Your task to perform on an android device: see sites visited before in the chrome app Image 0: 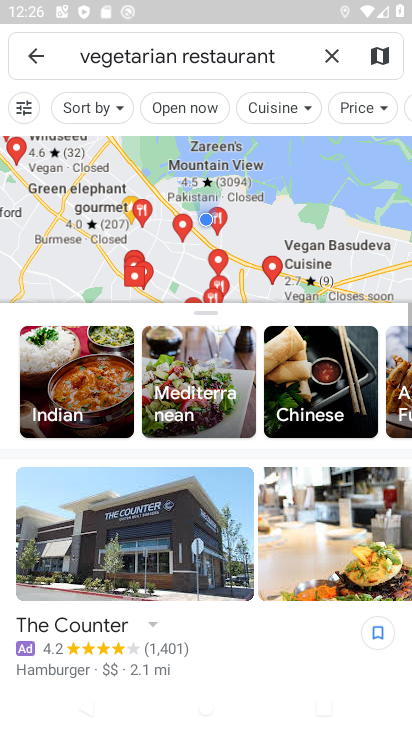
Step 0: press home button
Your task to perform on an android device: see sites visited before in the chrome app Image 1: 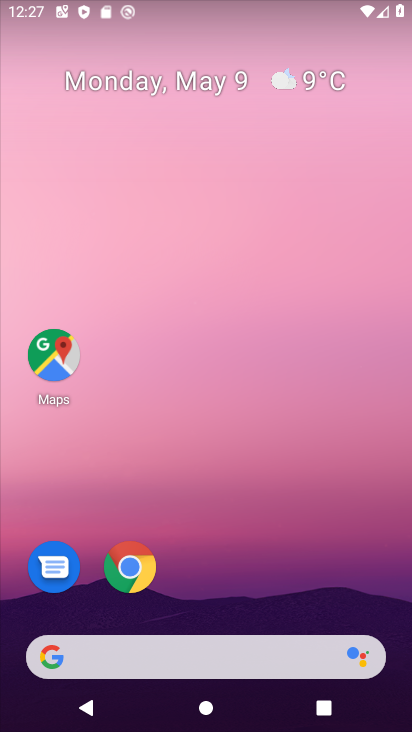
Step 1: drag from (259, 680) to (332, 340)
Your task to perform on an android device: see sites visited before in the chrome app Image 2: 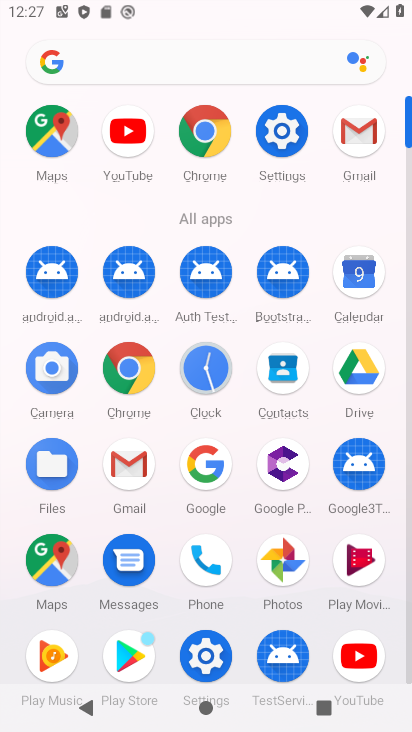
Step 2: click (218, 130)
Your task to perform on an android device: see sites visited before in the chrome app Image 3: 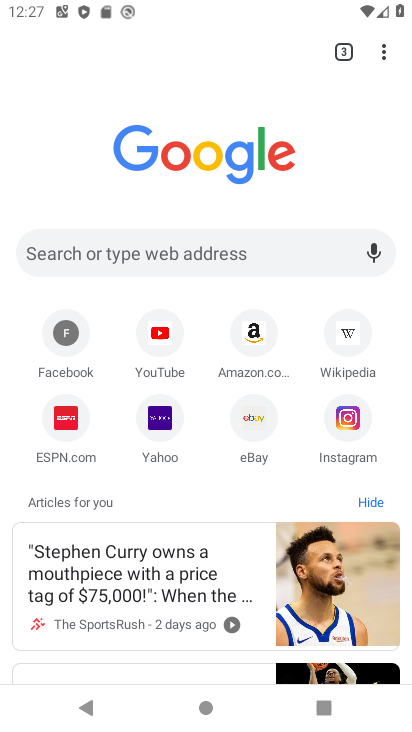
Step 3: click (385, 65)
Your task to perform on an android device: see sites visited before in the chrome app Image 4: 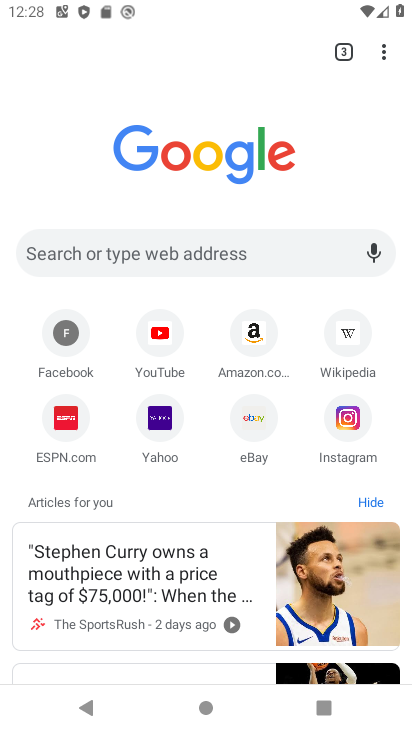
Step 4: click (379, 60)
Your task to perform on an android device: see sites visited before in the chrome app Image 5: 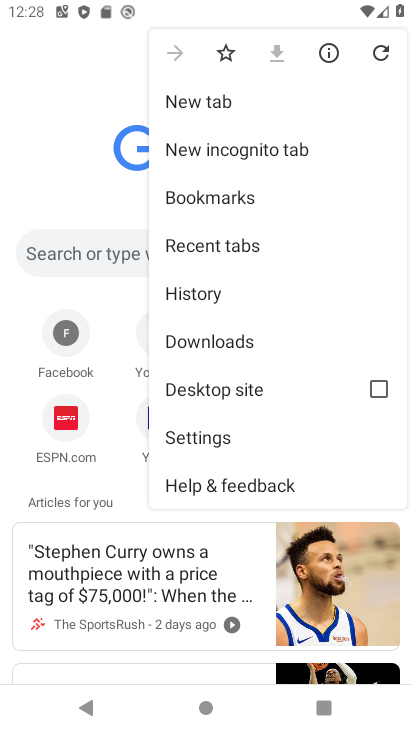
Step 5: click (226, 426)
Your task to perform on an android device: see sites visited before in the chrome app Image 6: 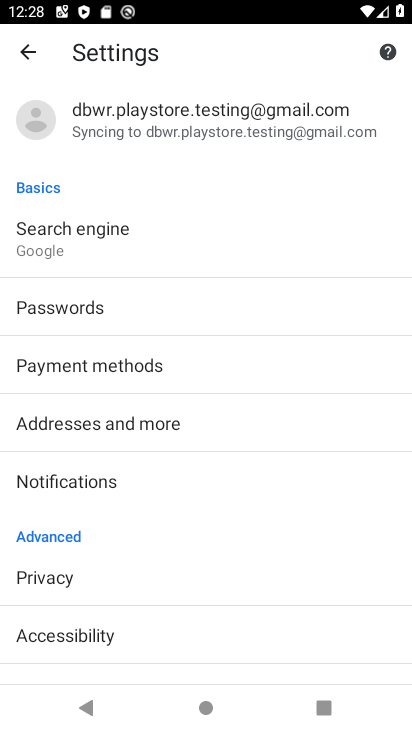
Step 6: drag from (146, 568) to (264, 386)
Your task to perform on an android device: see sites visited before in the chrome app Image 7: 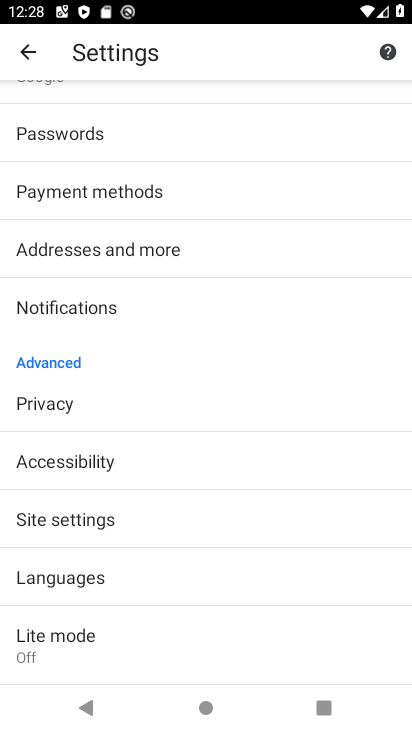
Step 7: click (107, 525)
Your task to perform on an android device: see sites visited before in the chrome app Image 8: 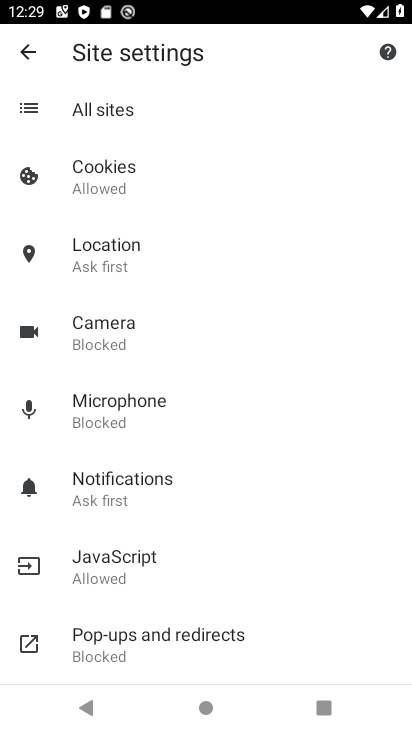
Step 8: click (149, 108)
Your task to perform on an android device: see sites visited before in the chrome app Image 9: 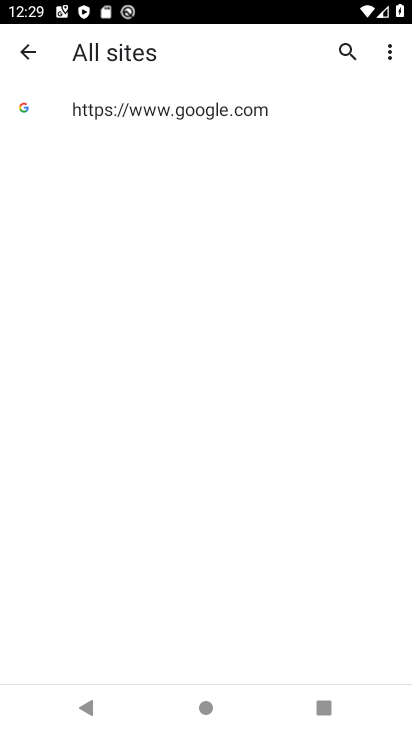
Step 9: task complete